Your task to perform on an android device: Go to Google maps Image 0: 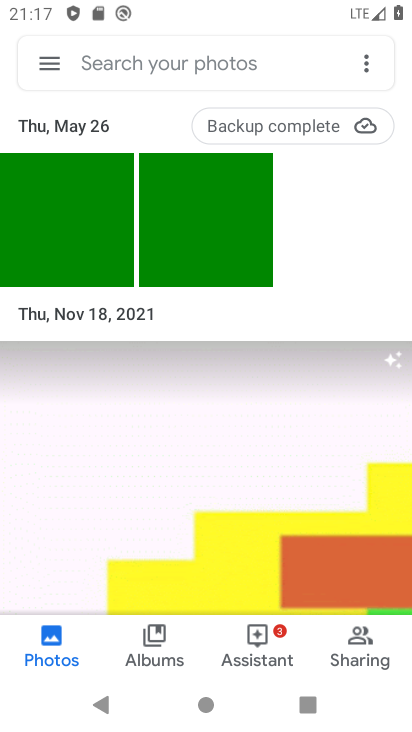
Step 0: press home button
Your task to perform on an android device: Go to Google maps Image 1: 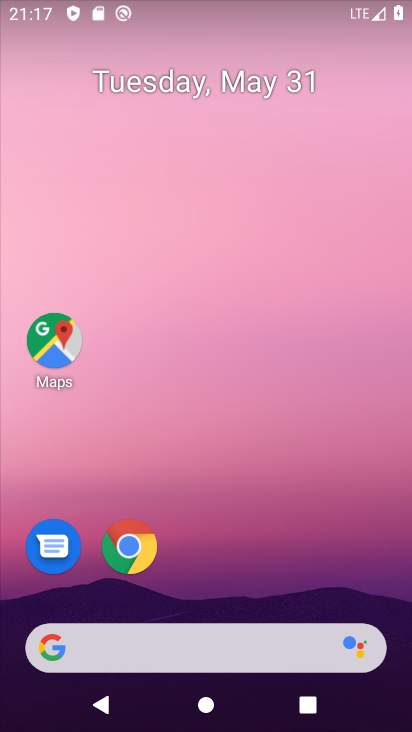
Step 1: click (41, 352)
Your task to perform on an android device: Go to Google maps Image 2: 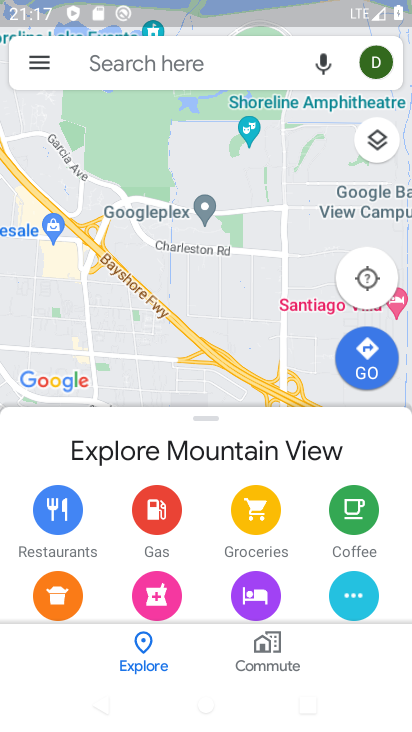
Step 2: task complete